Your task to perform on an android device: What is the news today? Image 0: 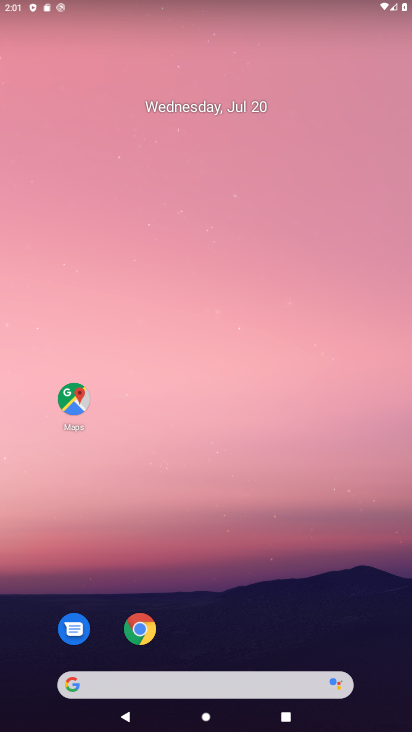
Step 0: drag from (2, 317) to (398, 377)
Your task to perform on an android device: What is the news today? Image 1: 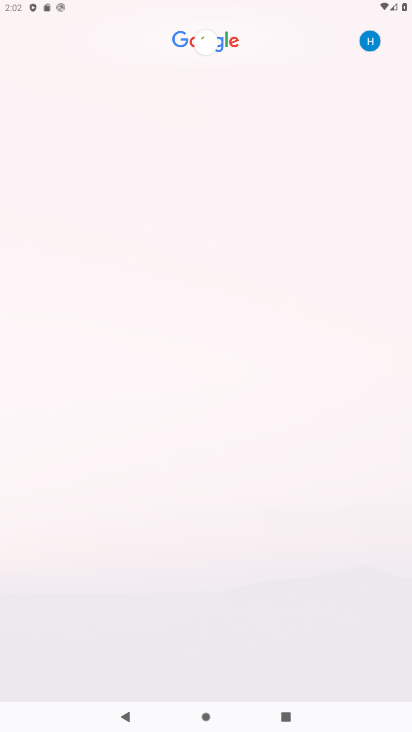
Step 1: task complete